Your task to perform on an android device: Go to Android settings Image 0: 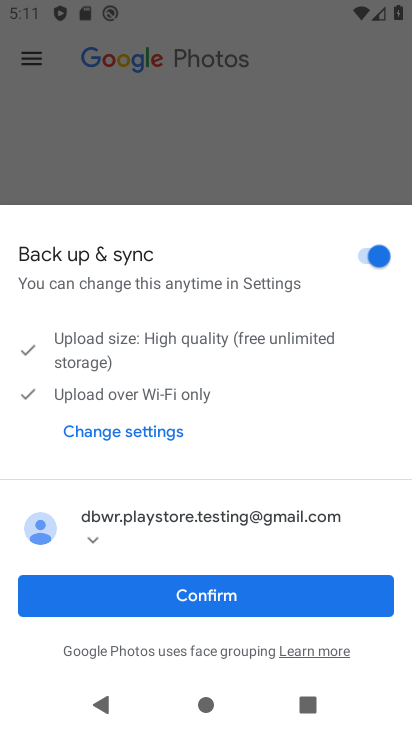
Step 0: press home button
Your task to perform on an android device: Go to Android settings Image 1: 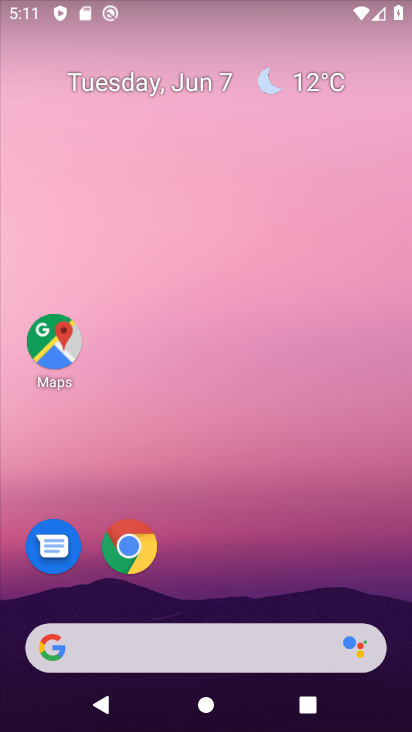
Step 1: drag from (247, 582) to (345, 6)
Your task to perform on an android device: Go to Android settings Image 2: 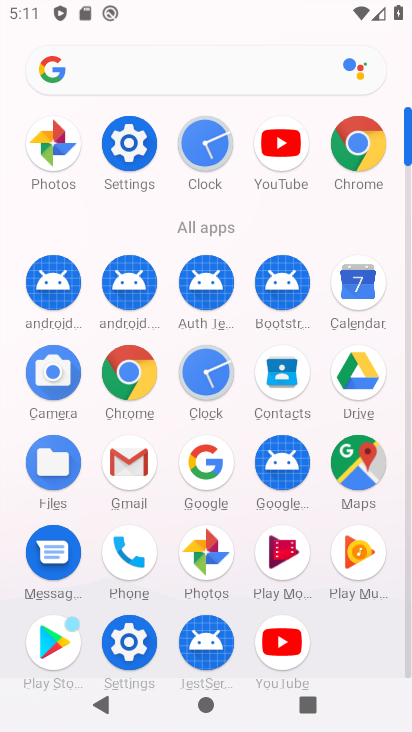
Step 2: click (133, 642)
Your task to perform on an android device: Go to Android settings Image 3: 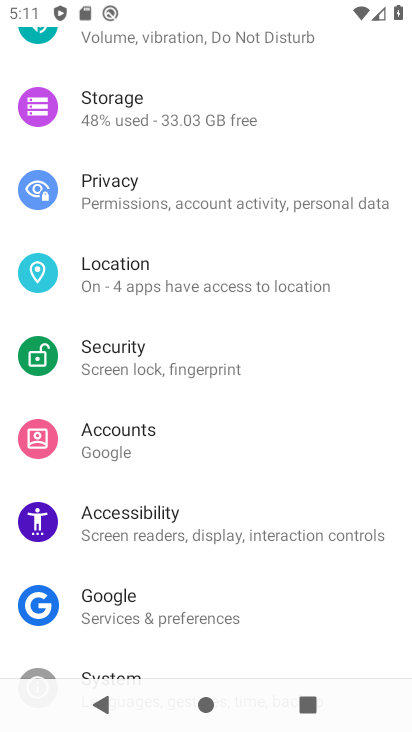
Step 3: drag from (141, 643) to (316, 88)
Your task to perform on an android device: Go to Android settings Image 4: 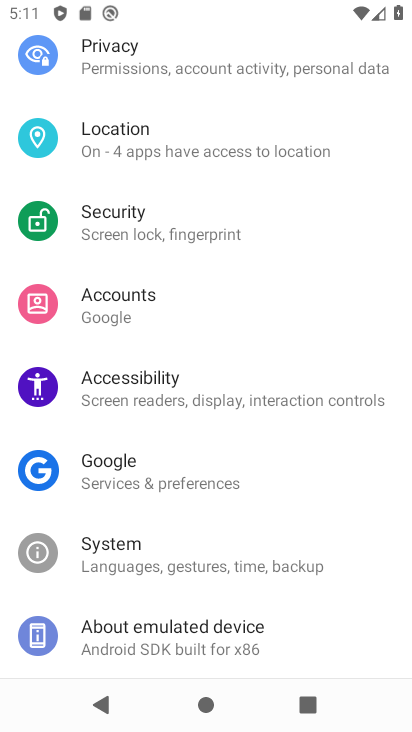
Step 4: click (118, 620)
Your task to perform on an android device: Go to Android settings Image 5: 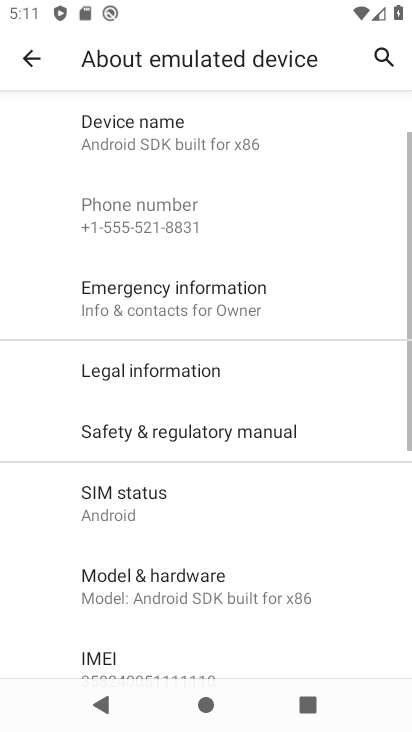
Step 5: drag from (220, 291) to (312, 87)
Your task to perform on an android device: Go to Android settings Image 6: 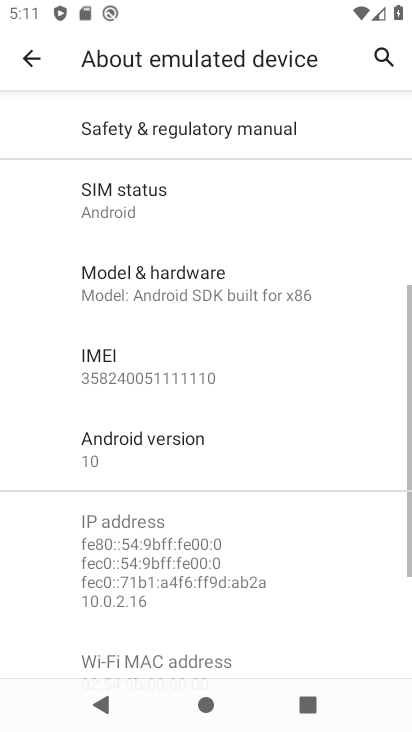
Step 6: click (156, 432)
Your task to perform on an android device: Go to Android settings Image 7: 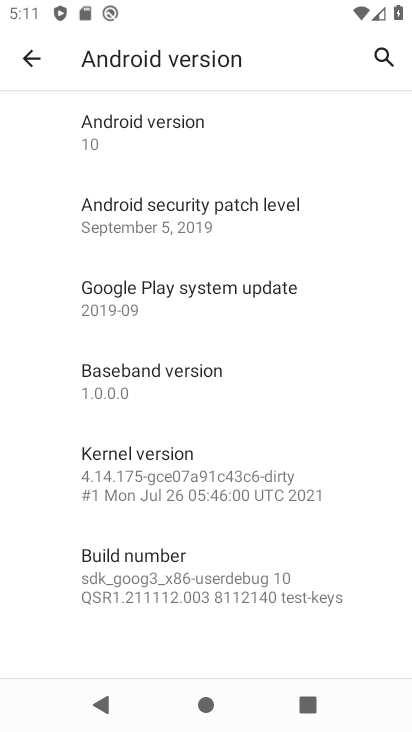
Step 7: task complete